Your task to perform on an android device: change notifications settings Image 0: 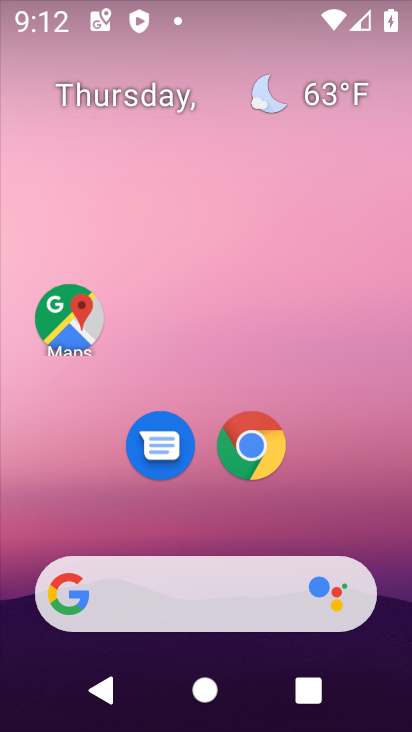
Step 0: drag from (183, 519) to (208, 184)
Your task to perform on an android device: change notifications settings Image 1: 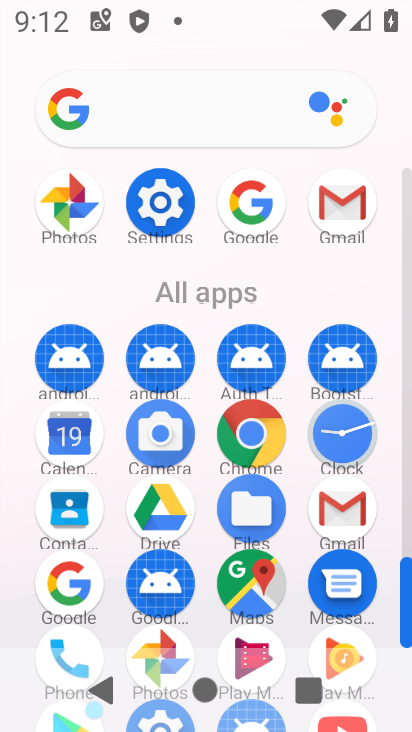
Step 1: click (172, 215)
Your task to perform on an android device: change notifications settings Image 2: 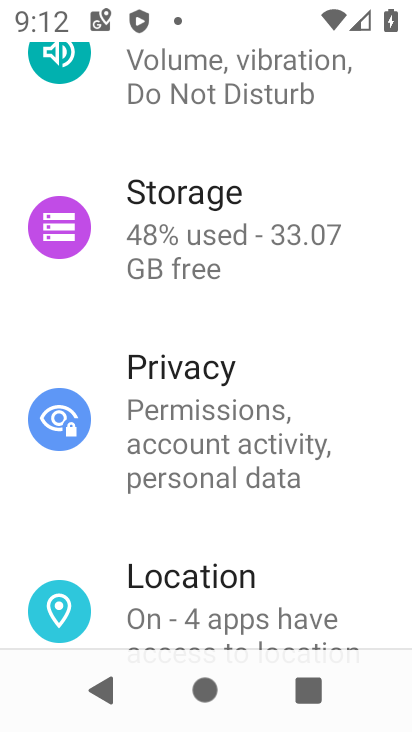
Step 2: drag from (254, 539) to (268, 271)
Your task to perform on an android device: change notifications settings Image 3: 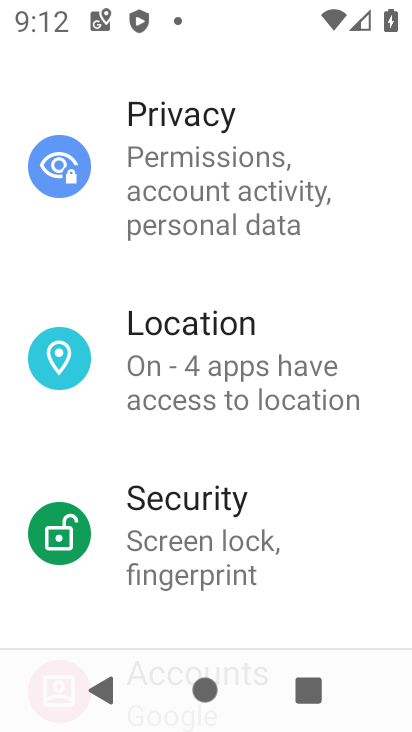
Step 3: drag from (268, 243) to (250, 579)
Your task to perform on an android device: change notifications settings Image 4: 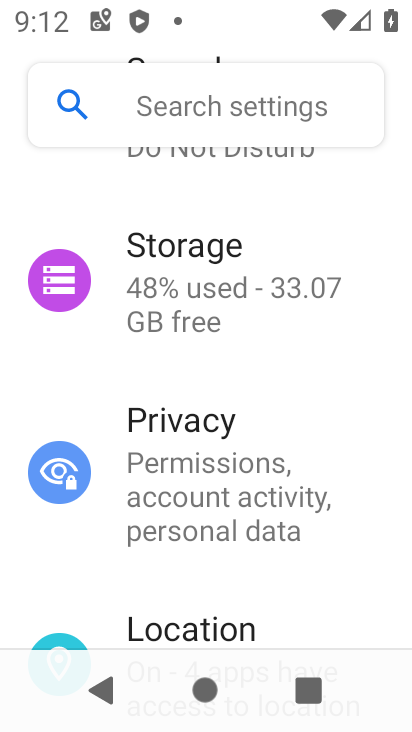
Step 4: drag from (262, 376) to (250, 617)
Your task to perform on an android device: change notifications settings Image 5: 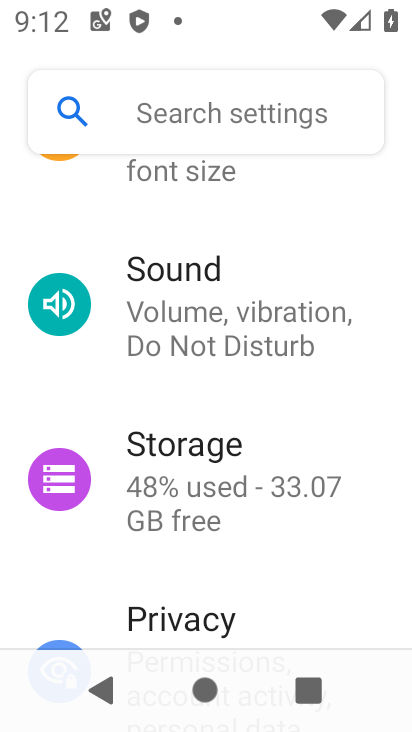
Step 5: drag from (251, 356) to (243, 654)
Your task to perform on an android device: change notifications settings Image 6: 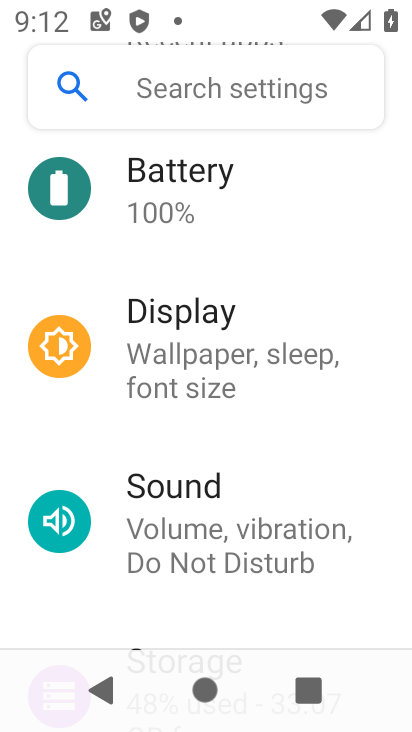
Step 6: drag from (236, 354) to (244, 647)
Your task to perform on an android device: change notifications settings Image 7: 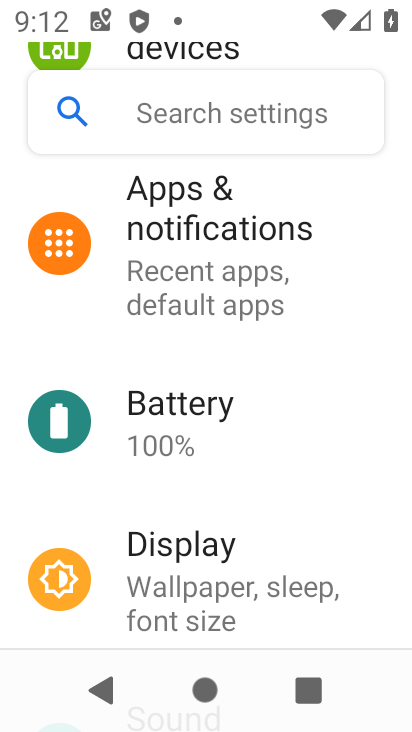
Step 7: click (240, 318)
Your task to perform on an android device: change notifications settings Image 8: 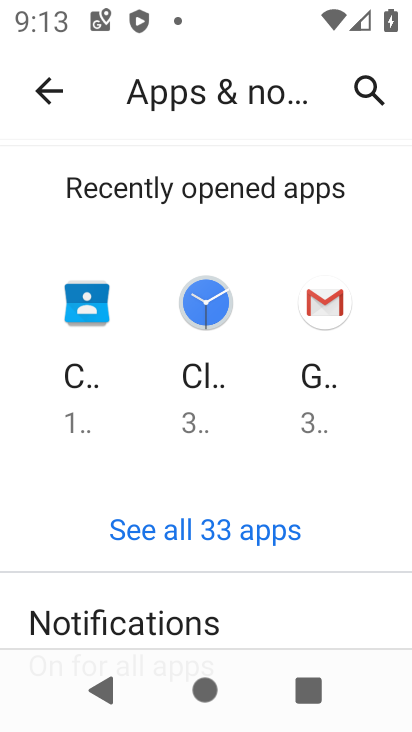
Step 8: drag from (238, 557) to (246, 184)
Your task to perform on an android device: change notifications settings Image 9: 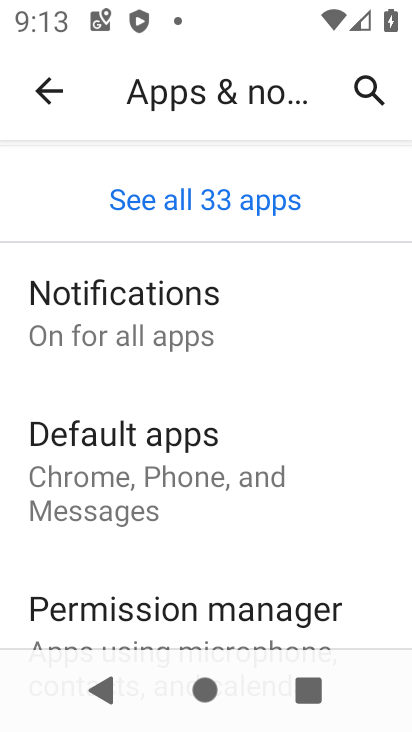
Step 9: click (186, 356)
Your task to perform on an android device: change notifications settings Image 10: 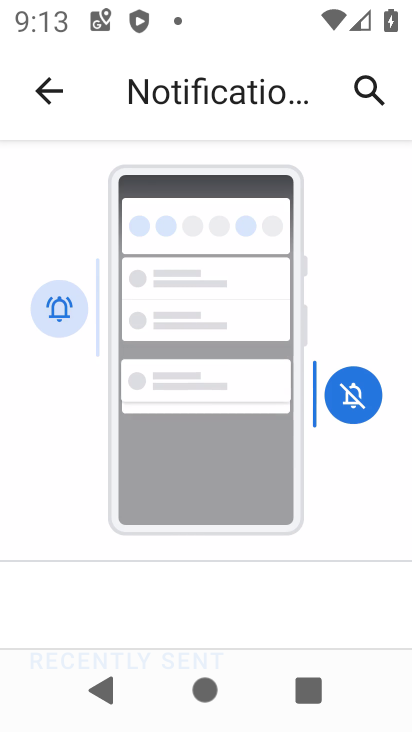
Step 10: drag from (188, 598) to (241, 212)
Your task to perform on an android device: change notifications settings Image 11: 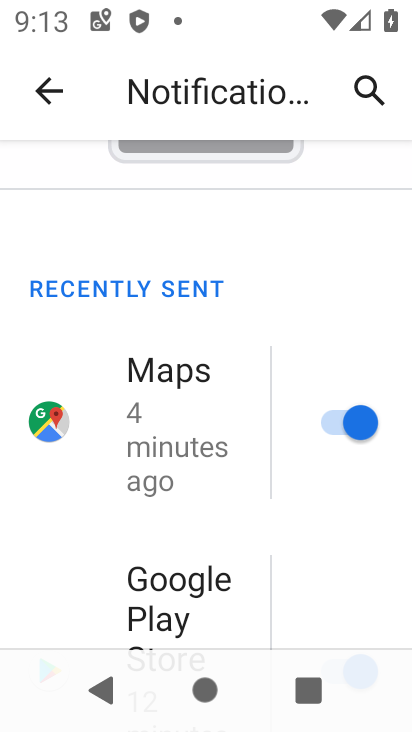
Step 11: drag from (244, 519) to (262, 386)
Your task to perform on an android device: change notifications settings Image 12: 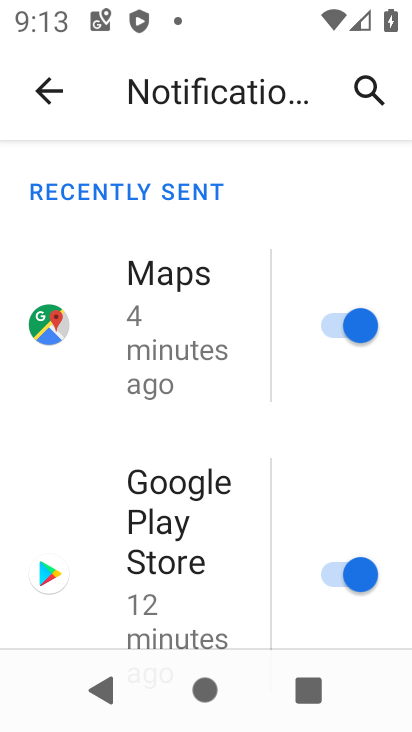
Step 12: click (335, 573)
Your task to perform on an android device: change notifications settings Image 13: 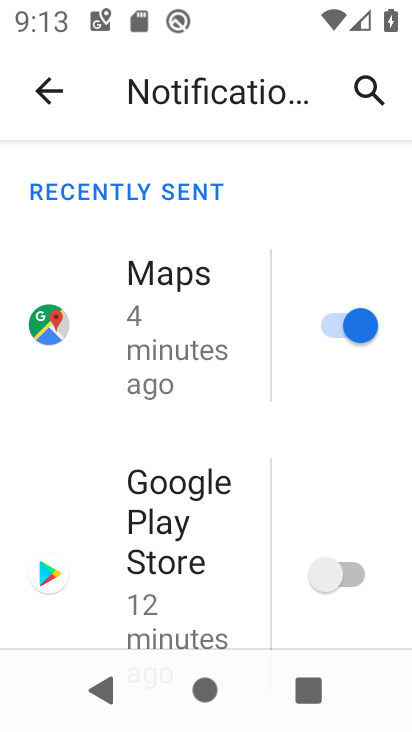
Step 13: task complete